Your task to perform on an android device: turn off smart reply in the gmail app Image 0: 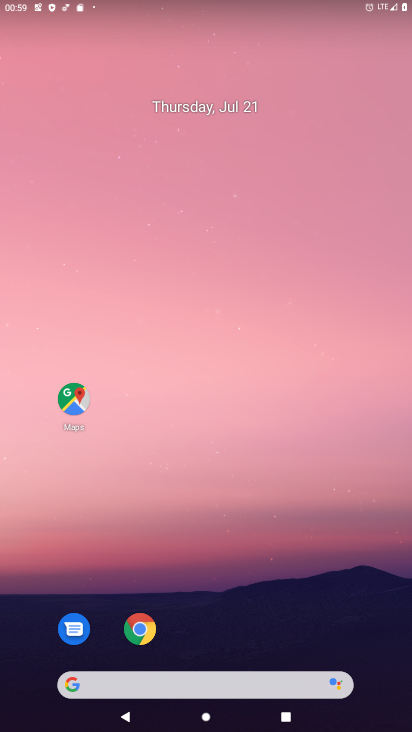
Step 0: drag from (236, 265) to (209, 35)
Your task to perform on an android device: turn off smart reply in the gmail app Image 1: 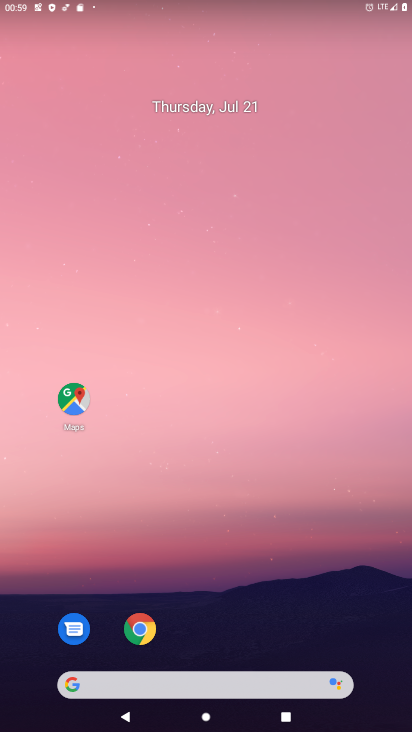
Step 1: drag from (326, 458) to (241, 69)
Your task to perform on an android device: turn off smart reply in the gmail app Image 2: 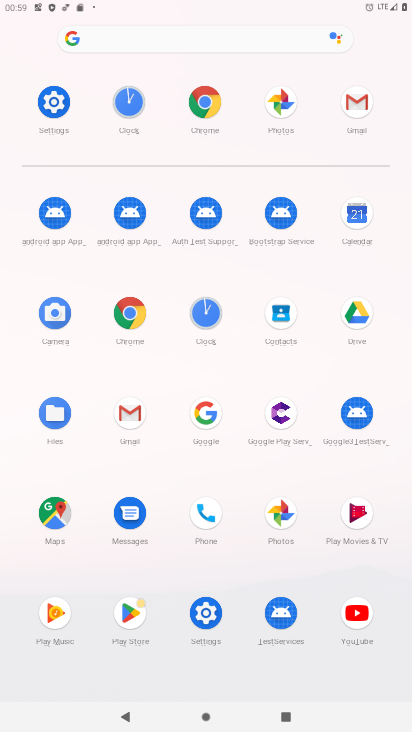
Step 2: click (347, 104)
Your task to perform on an android device: turn off smart reply in the gmail app Image 3: 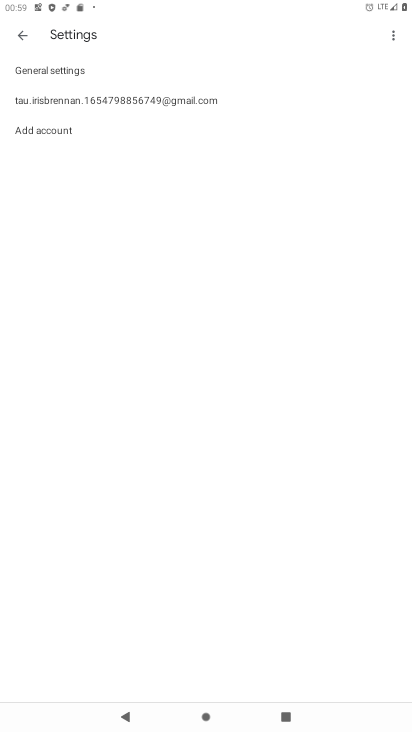
Step 3: click (66, 98)
Your task to perform on an android device: turn off smart reply in the gmail app Image 4: 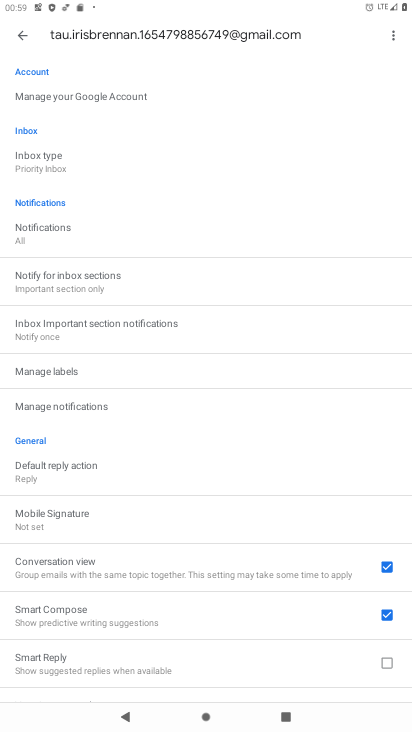
Step 4: task complete